Your task to perform on an android device: turn off smart reply in the gmail app Image 0: 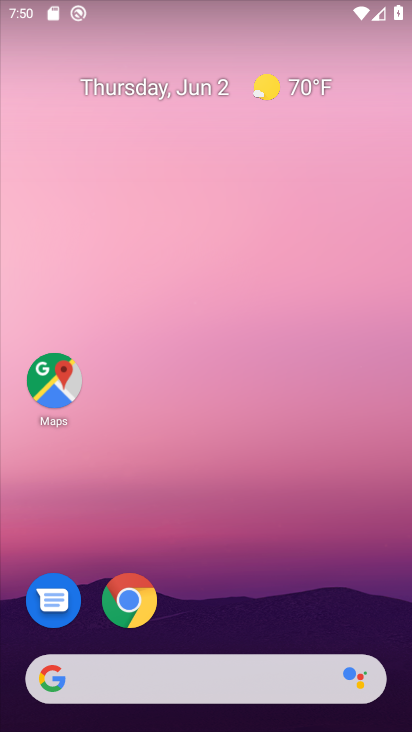
Step 0: drag from (367, 535) to (369, 111)
Your task to perform on an android device: turn off smart reply in the gmail app Image 1: 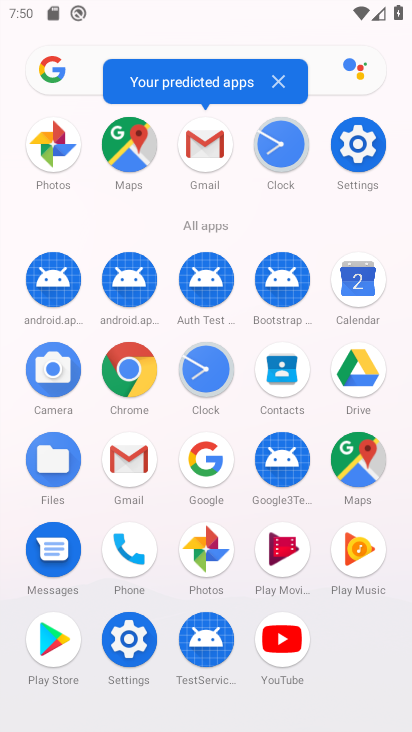
Step 1: click (145, 480)
Your task to perform on an android device: turn off smart reply in the gmail app Image 2: 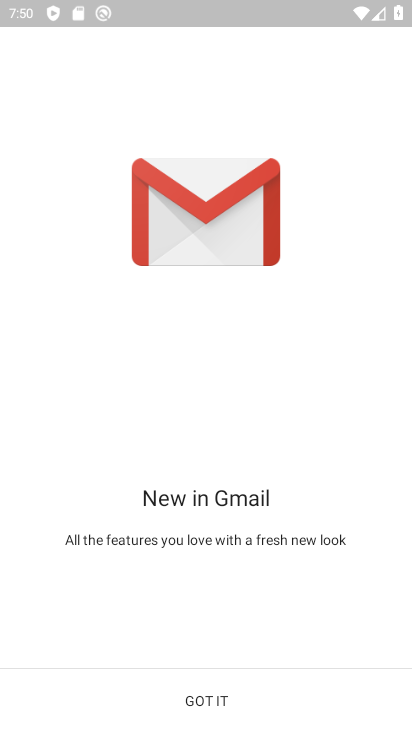
Step 2: click (256, 679)
Your task to perform on an android device: turn off smart reply in the gmail app Image 3: 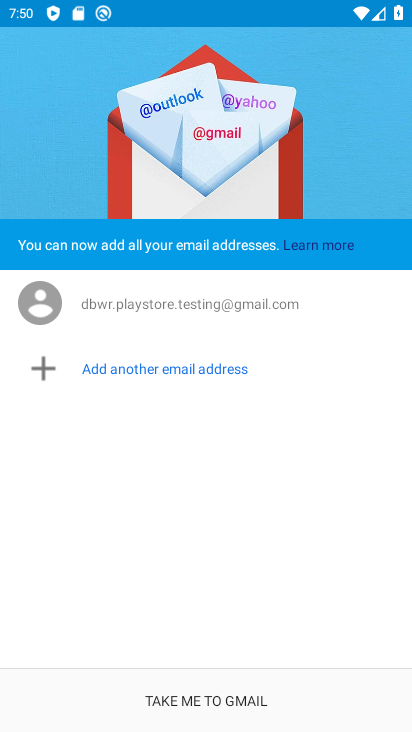
Step 3: click (264, 700)
Your task to perform on an android device: turn off smart reply in the gmail app Image 4: 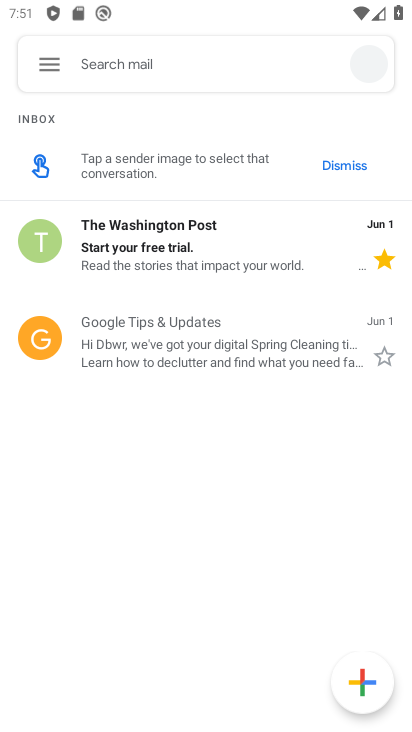
Step 4: click (51, 65)
Your task to perform on an android device: turn off smart reply in the gmail app Image 5: 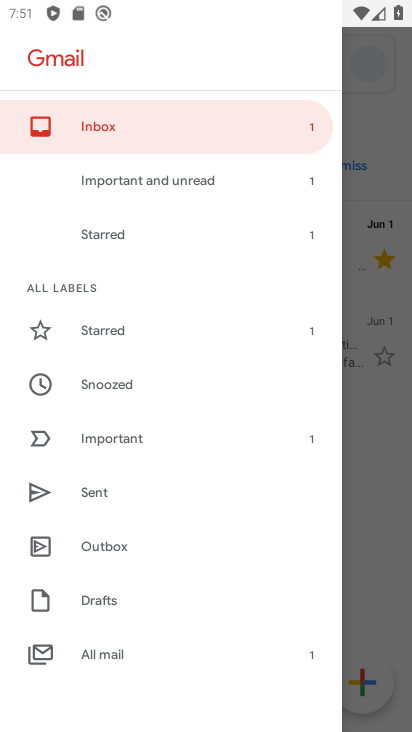
Step 5: drag from (239, 464) to (242, 361)
Your task to perform on an android device: turn off smart reply in the gmail app Image 6: 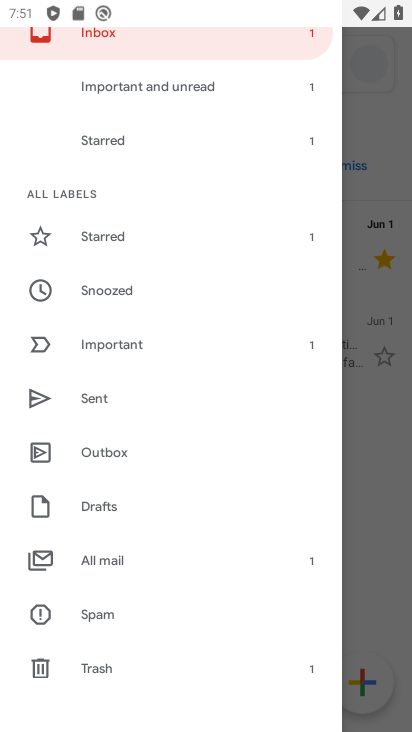
Step 6: drag from (234, 469) to (241, 345)
Your task to perform on an android device: turn off smart reply in the gmail app Image 7: 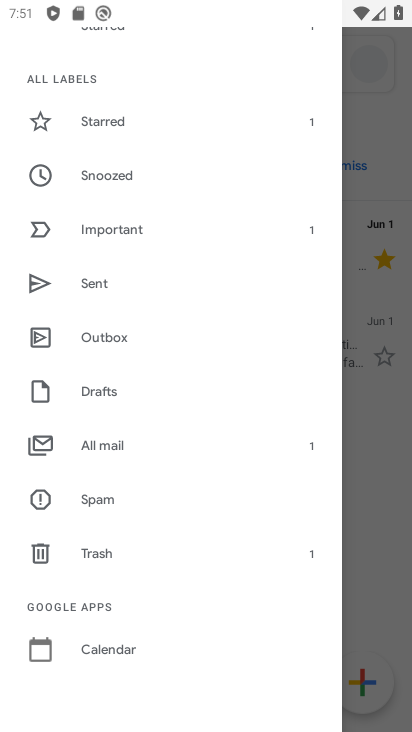
Step 7: drag from (241, 488) to (235, 357)
Your task to perform on an android device: turn off smart reply in the gmail app Image 8: 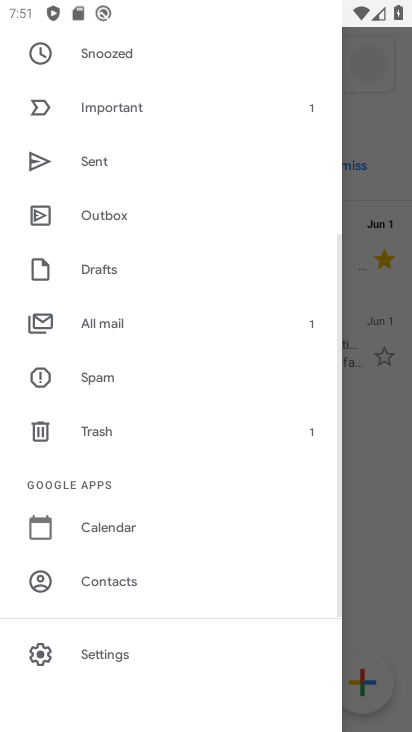
Step 8: drag from (245, 503) to (236, 344)
Your task to perform on an android device: turn off smart reply in the gmail app Image 9: 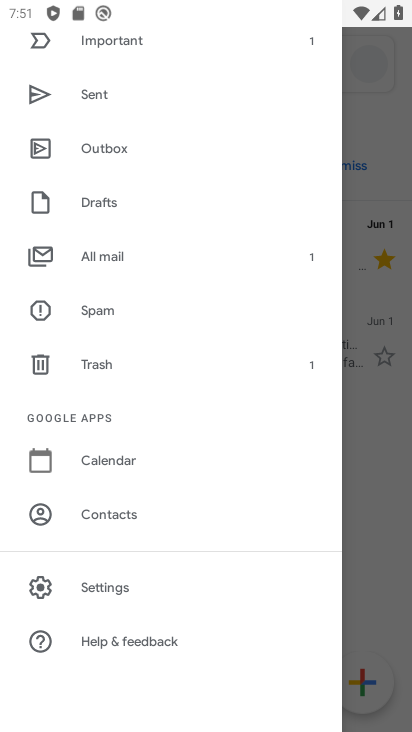
Step 9: click (149, 582)
Your task to perform on an android device: turn off smart reply in the gmail app Image 10: 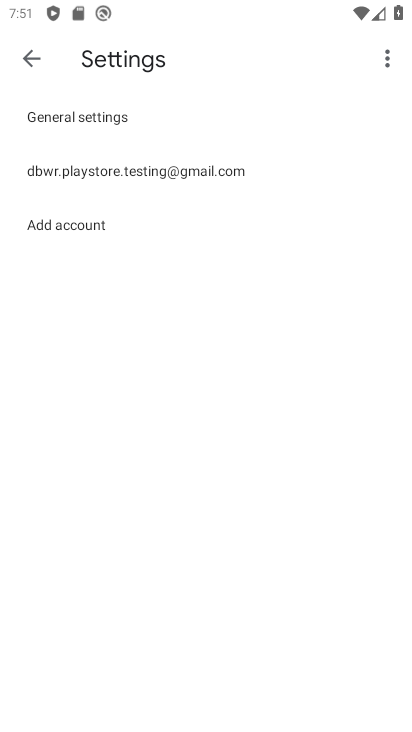
Step 10: click (245, 172)
Your task to perform on an android device: turn off smart reply in the gmail app Image 11: 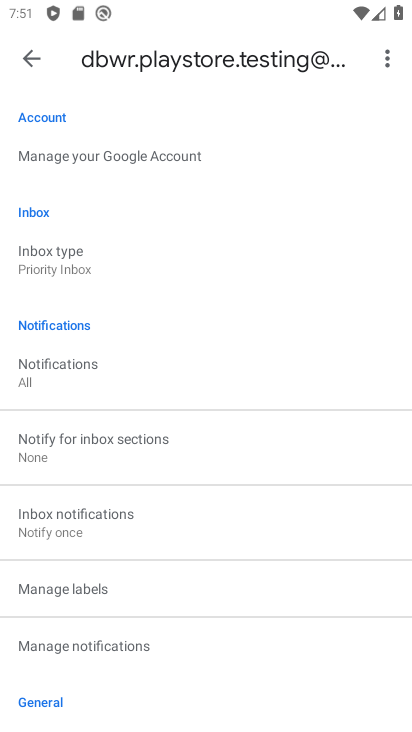
Step 11: drag from (265, 353) to (274, 289)
Your task to perform on an android device: turn off smart reply in the gmail app Image 12: 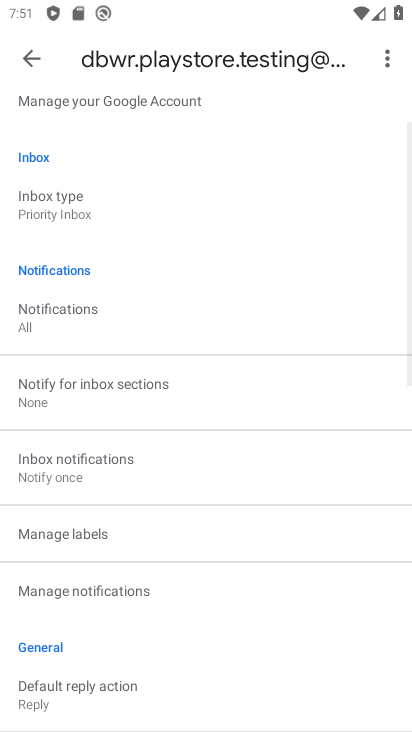
Step 12: drag from (287, 421) to (292, 335)
Your task to perform on an android device: turn off smart reply in the gmail app Image 13: 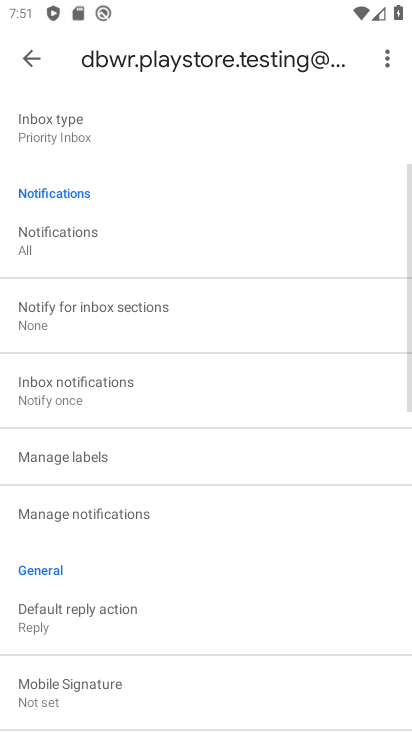
Step 13: drag from (278, 439) to (275, 290)
Your task to perform on an android device: turn off smart reply in the gmail app Image 14: 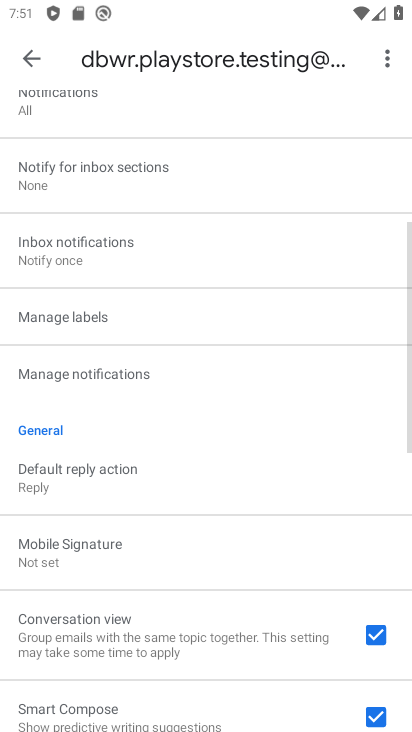
Step 14: drag from (296, 455) to (291, 323)
Your task to perform on an android device: turn off smart reply in the gmail app Image 15: 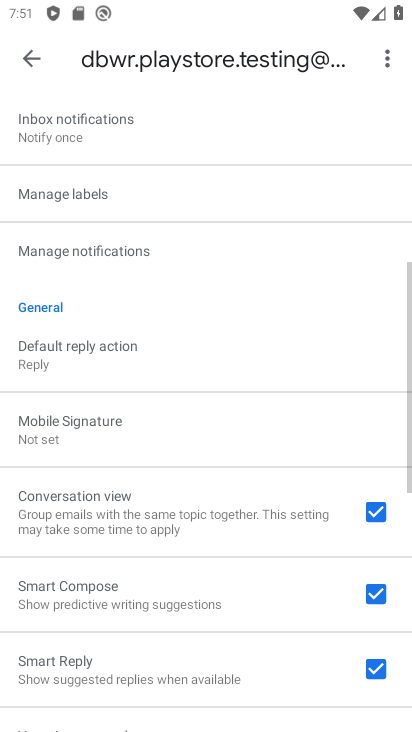
Step 15: drag from (283, 428) to (279, 338)
Your task to perform on an android device: turn off smart reply in the gmail app Image 16: 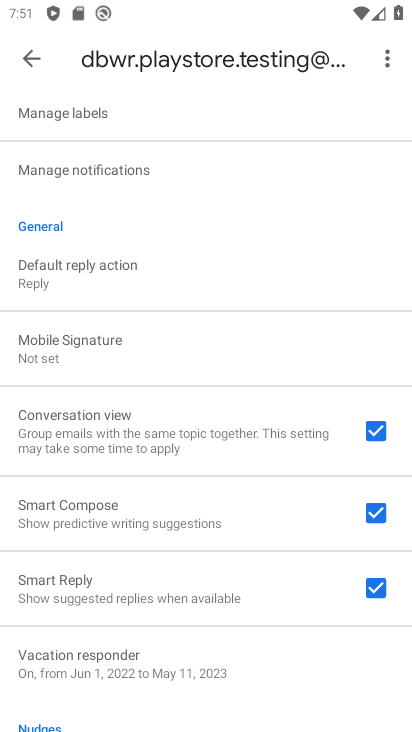
Step 16: drag from (280, 397) to (269, 195)
Your task to perform on an android device: turn off smart reply in the gmail app Image 17: 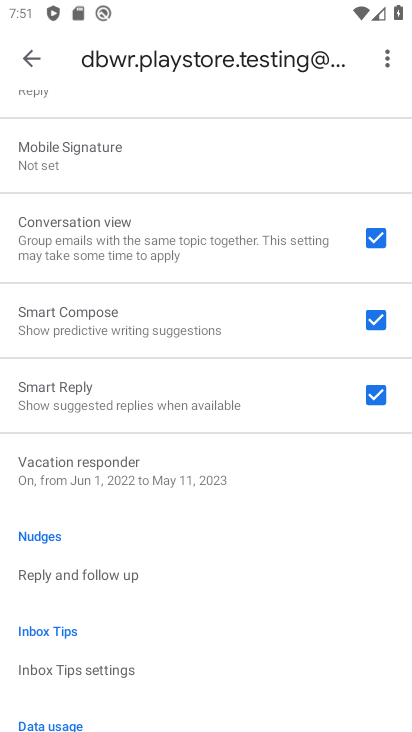
Step 17: click (375, 395)
Your task to perform on an android device: turn off smart reply in the gmail app Image 18: 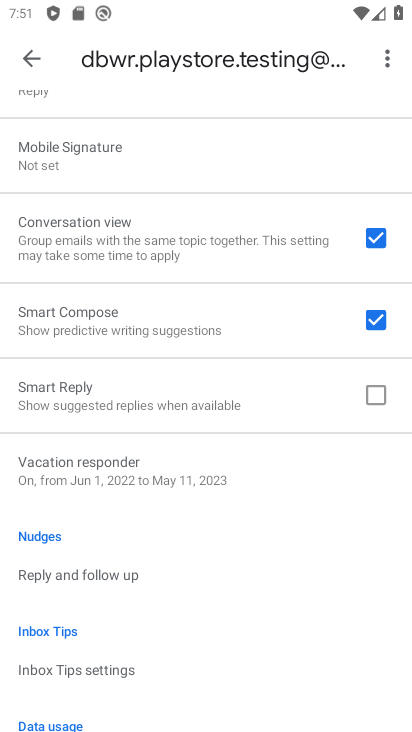
Step 18: task complete